Your task to perform on an android device: Open the map Image 0: 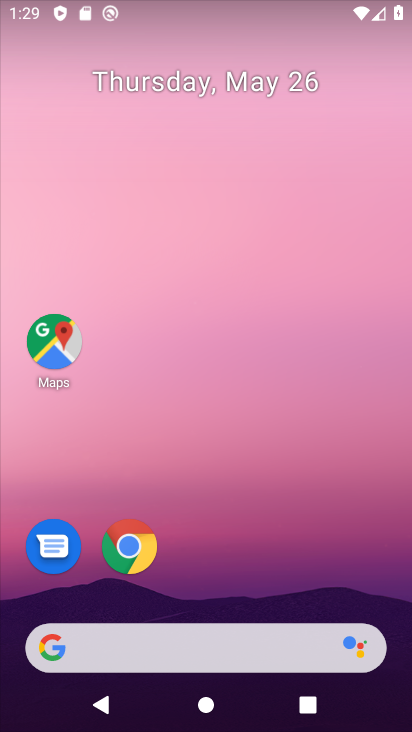
Step 0: click (51, 344)
Your task to perform on an android device: Open the map Image 1: 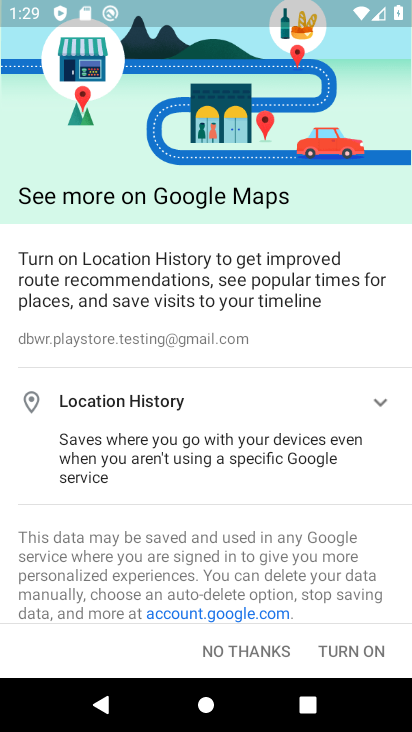
Step 1: task complete